Your task to perform on an android device: turn on the 24-hour format for clock Image 0: 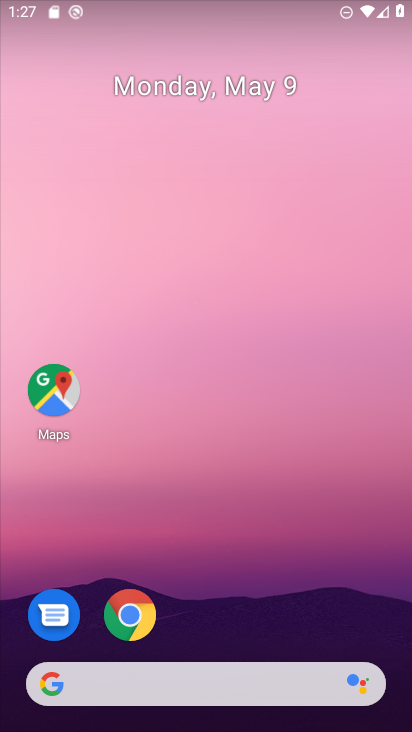
Step 0: drag from (249, 584) to (115, 53)
Your task to perform on an android device: turn on the 24-hour format for clock Image 1: 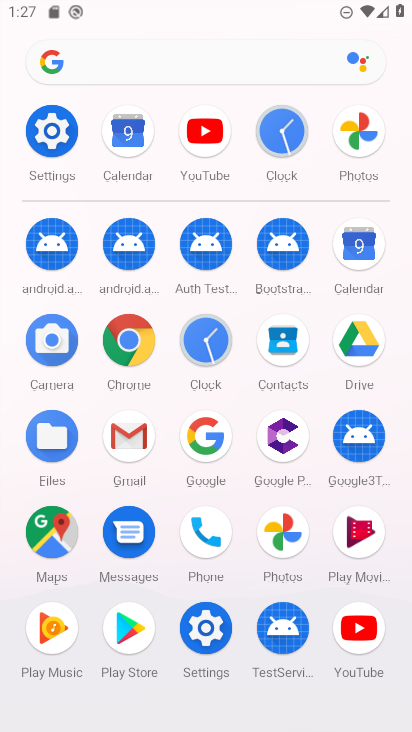
Step 1: click (206, 342)
Your task to perform on an android device: turn on the 24-hour format for clock Image 2: 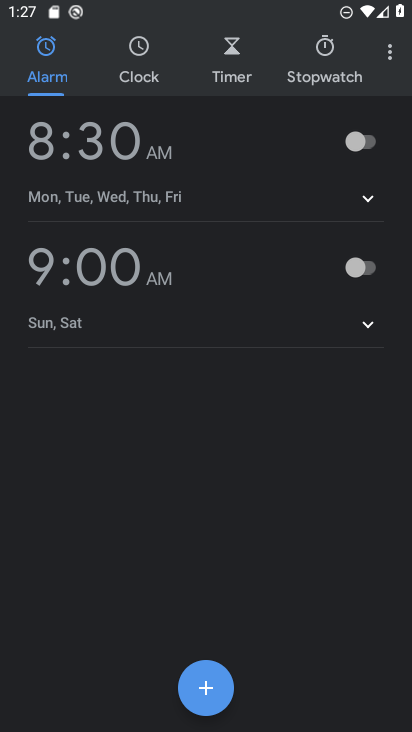
Step 2: click (394, 59)
Your task to perform on an android device: turn on the 24-hour format for clock Image 3: 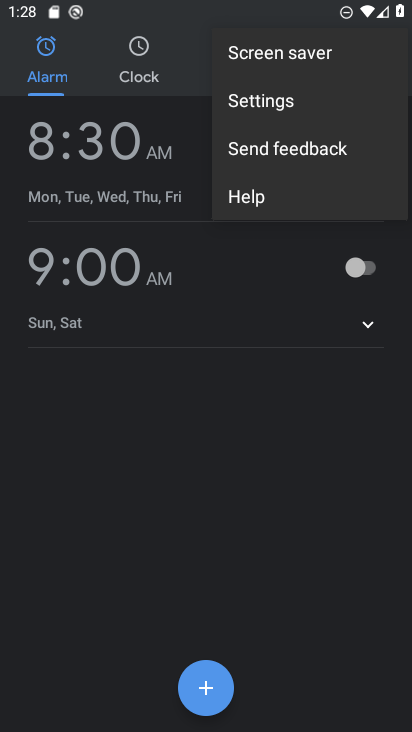
Step 3: click (268, 102)
Your task to perform on an android device: turn on the 24-hour format for clock Image 4: 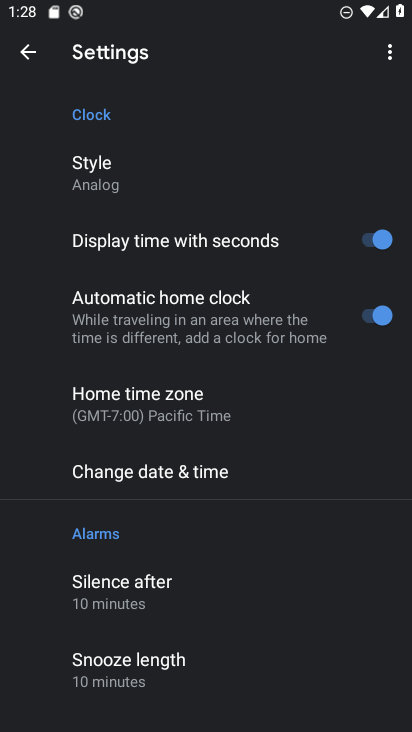
Step 4: click (200, 466)
Your task to perform on an android device: turn on the 24-hour format for clock Image 5: 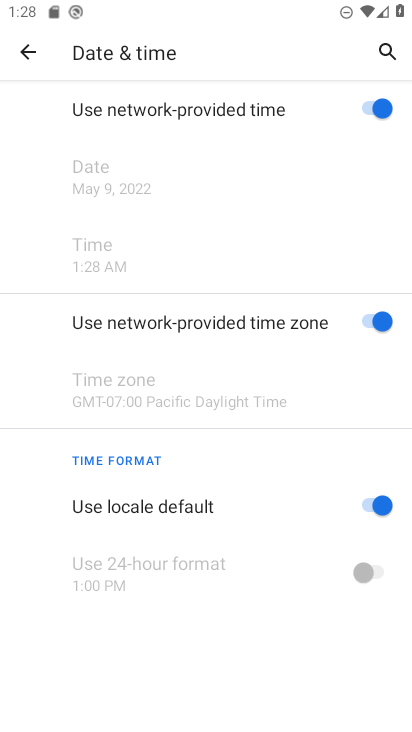
Step 5: click (389, 508)
Your task to perform on an android device: turn on the 24-hour format for clock Image 6: 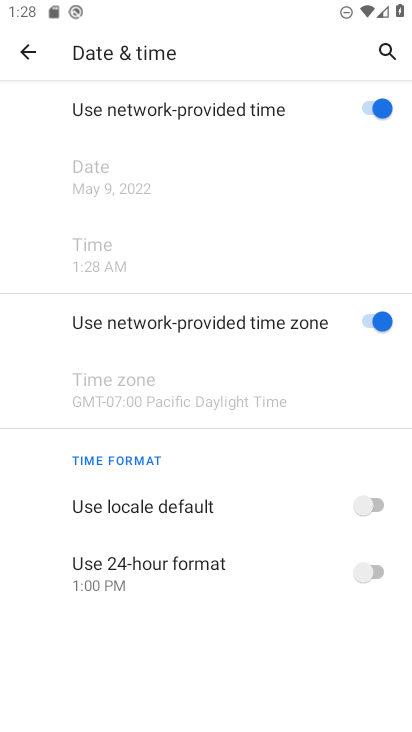
Step 6: click (371, 572)
Your task to perform on an android device: turn on the 24-hour format for clock Image 7: 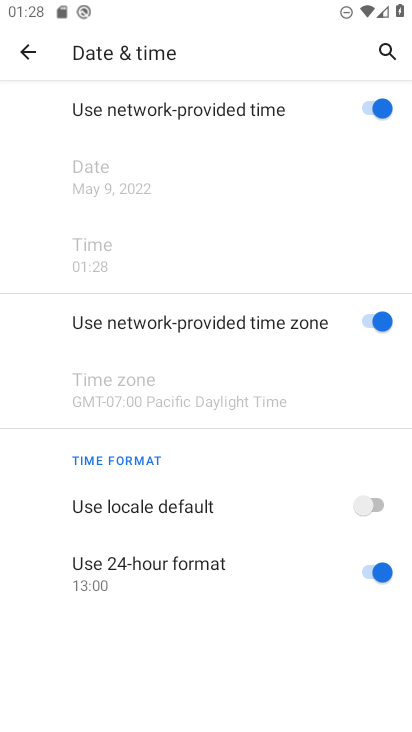
Step 7: task complete